Your task to perform on an android device: Search for sushi restaurants on Maps Image 0: 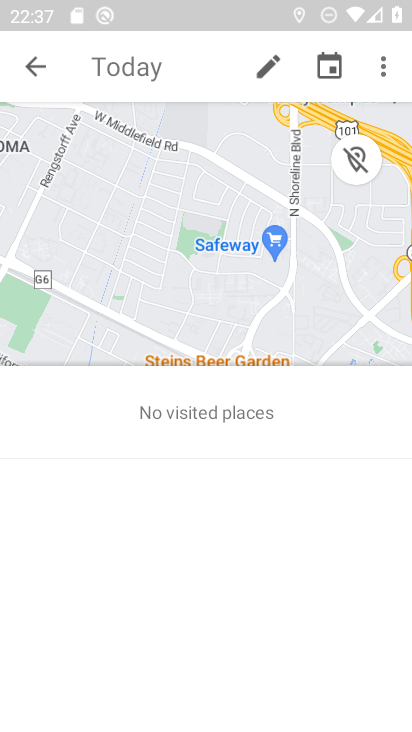
Step 0: press home button
Your task to perform on an android device: Search for sushi restaurants on Maps Image 1: 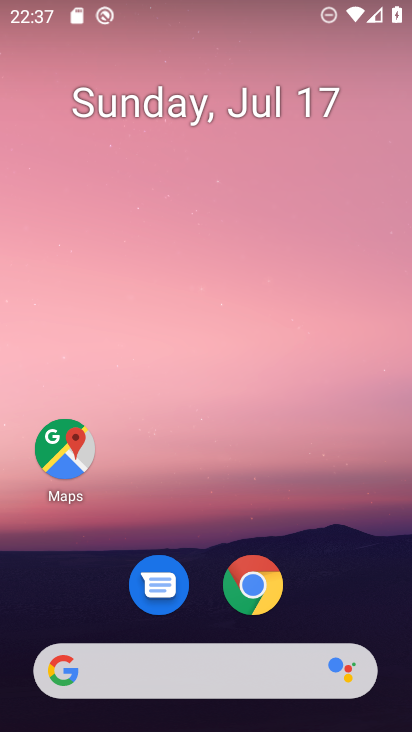
Step 1: click (63, 450)
Your task to perform on an android device: Search for sushi restaurants on Maps Image 2: 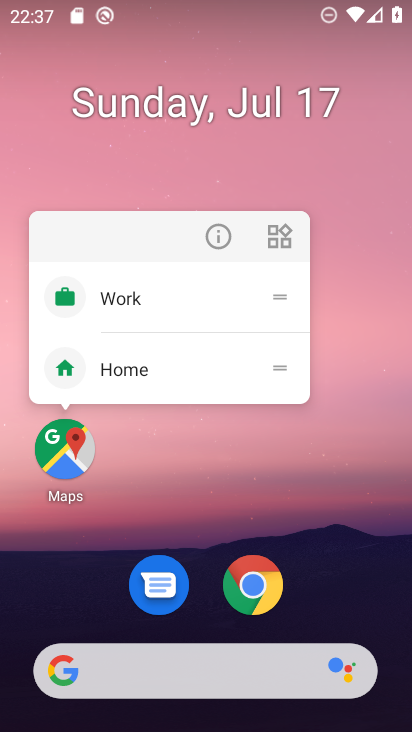
Step 2: click (69, 450)
Your task to perform on an android device: Search for sushi restaurants on Maps Image 3: 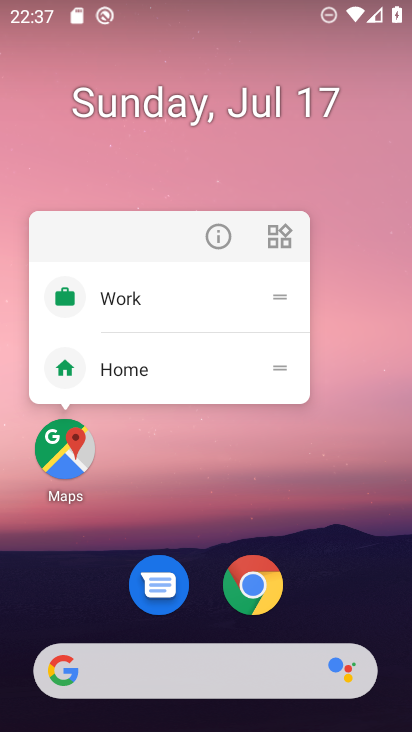
Step 3: click (65, 456)
Your task to perform on an android device: Search for sushi restaurants on Maps Image 4: 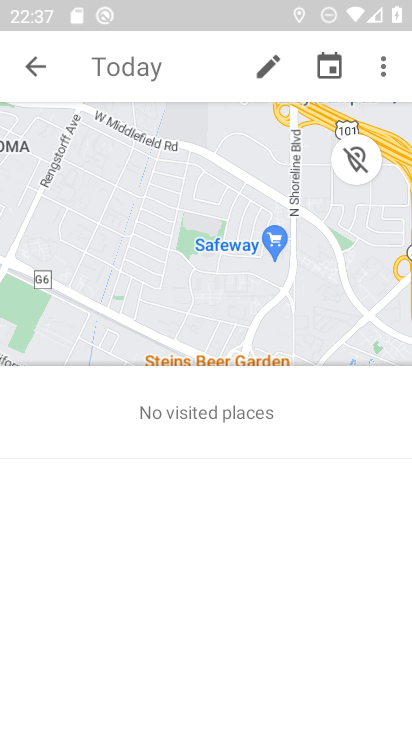
Step 4: click (36, 70)
Your task to perform on an android device: Search for sushi restaurants on Maps Image 5: 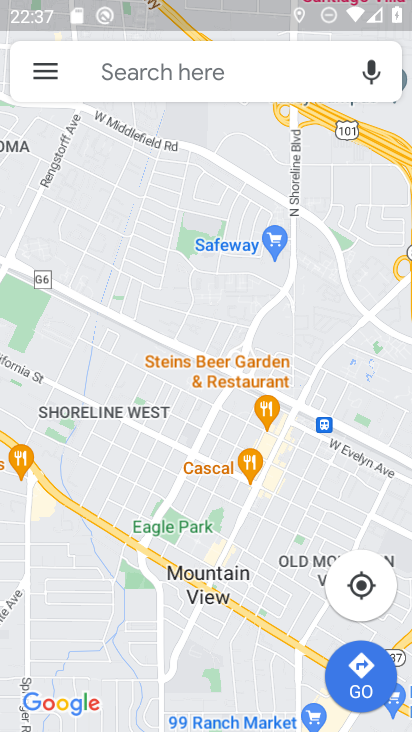
Step 5: click (173, 73)
Your task to perform on an android device: Search for sushi restaurants on Maps Image 6: 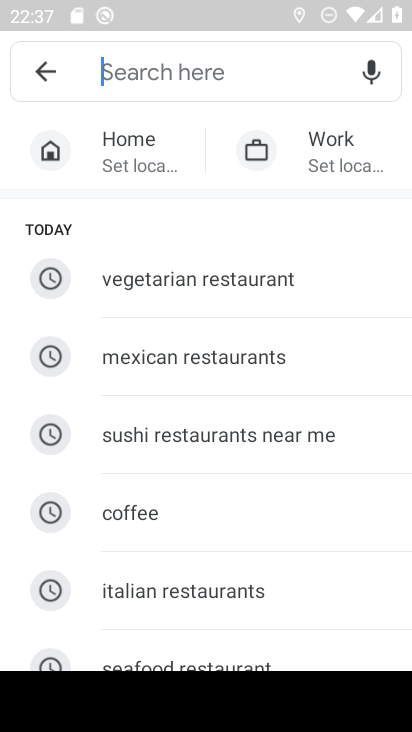
Step 6: click (158, 430)
Your task to perform on an android device: Search for sushi restaurants on Maps Image 7: 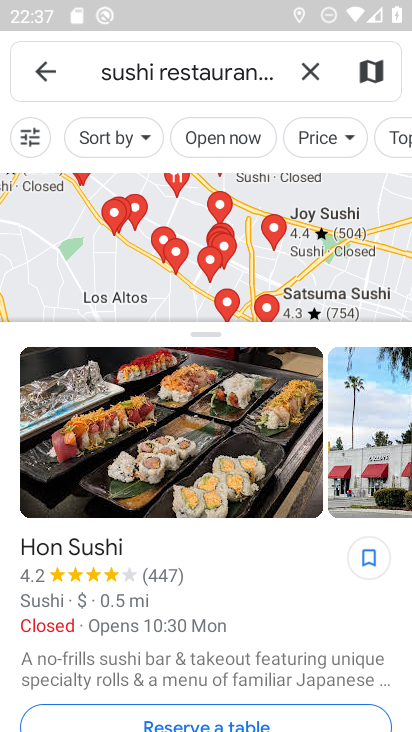
Step 7: task complete